Your task to perform on an android device: Clear all items from cart on bestbuy.com. Search for "acer predator" on bestbuy.com, select the first entry, add it to the cart, then select checkout. Image 0: 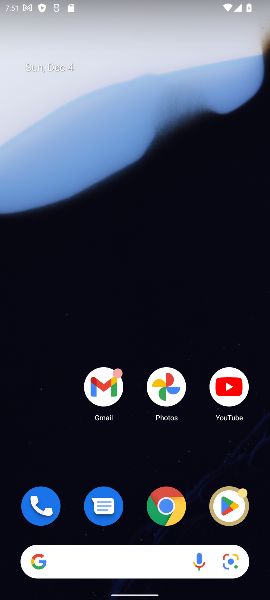
Step 0: click (177, 515)
Your task to perform on an android device: Clear all items from cart on bestbuy.com. Search for "acer predator" on bestbuy.com, select the first entry, add it to the cart, then select checkout. Image 1: 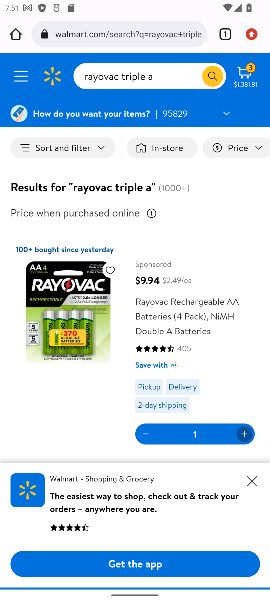
Step 1: click (74, 39)
Your task to perform on an android device: Clear all items from cart on bestbuy.com. Search for "acer predator" on bestbuy.com, select the first entry, add it to the cart, then select checkout. Image 2: 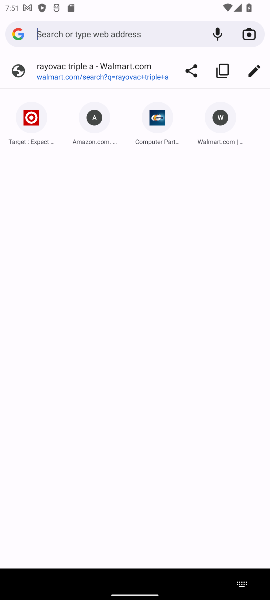
Step 2: type "bestbuy"
Your task to perform on an android device: Clear all items from cart on bestbuy.com. Search for "acer predator" on bestbuy.com, select the first entry, add it to the cart, then select checkout. Image 3: 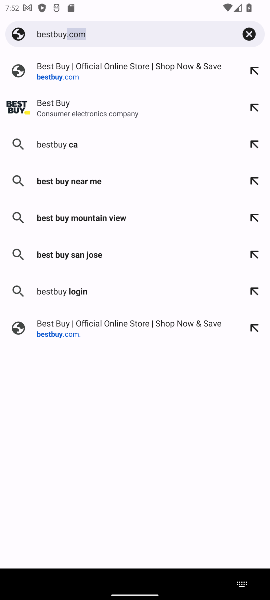
Step 3: click (62, 120)
Your task to perform on an android device: Clear all items from cart on bestbuy.com. Search for "acer predator" on bestbuy.com, select the first entry, add it to the cart, then select checkout. Image 4: 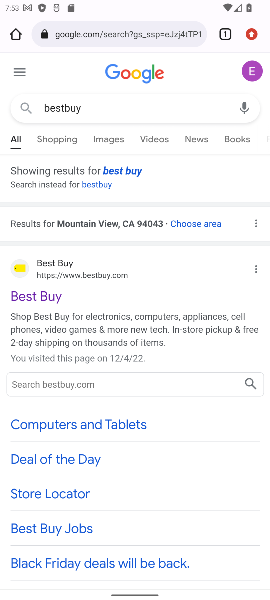
Step 4: click (11, 295)
Your task to perform on an android device: Clear all items from cart on bestbuy.com. Search for "acer predator" on bestbuy.com, select the first entry, add it to the cart, then select checkout. Image 5: 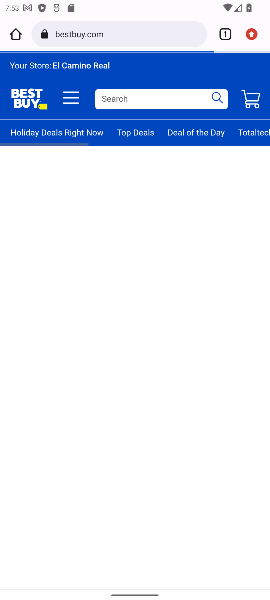
Step 5: click (11, 295)
Your task to perform on an android device: Clear all items from cart on bestbuy.com. Search for "acer predator" on bestbuy.com, select the first entry, add it to the cart, then select checkout. Image 6: 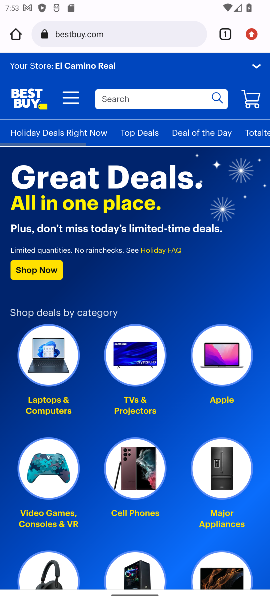
Step 6: click (139, 98)
Your task to perform on an android device: Clear all items from cart on bestbuy.com. Search for "acer predator" on bestbuy.com, select the first entry, add it to the cart, then select checkout. Image 7: 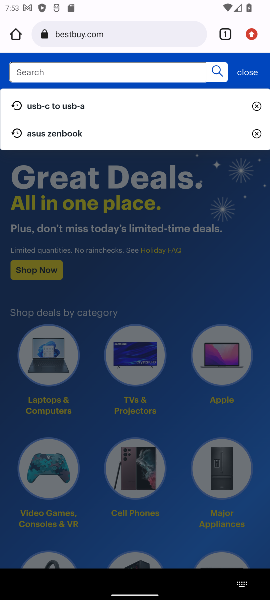
Step 7: type "acer predator"
Your task to perform on an android device: Clear all items from cart on bestbuy.com. Search for "acer predator" on bestbuy.com, select the first entry, add it to the cart, then select checkout. Image 8: 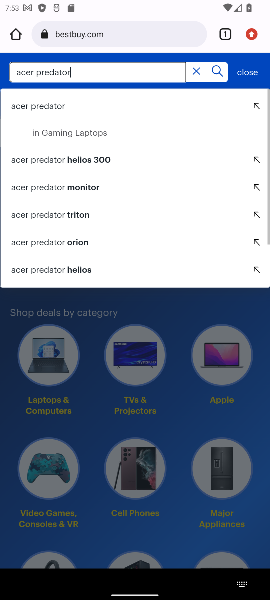
Step 8: click (31, 110)
Your task to perform on an android device: Clear all items from cart on bestbuy.com. Search for "acer predator" on bestbuy.com, select the first entry, add it to the cart, then select checkout. Image 9: 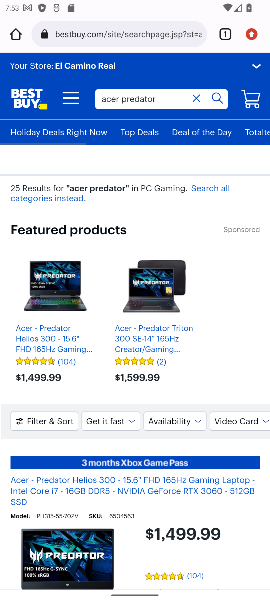
Step 9: drag from (143, 505) to (151, 162)
Your task to perform on an android device: Clear all items from cart on bestbuy.com. Search for "acer predator" on bestbuy.com, select the first entry, add it to the cart, then select checkout. Image 10: 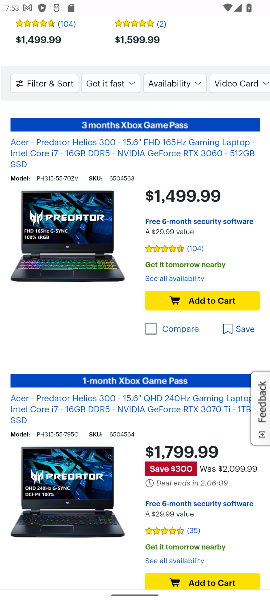
Step 10: click (183, 298)
Your task to perform on an android device: Clear all items from cart on bestbuy.com. Search for "acer predator" on bestbuy.com, select the first entry, add it to the cart, then select checkout. Image 11: 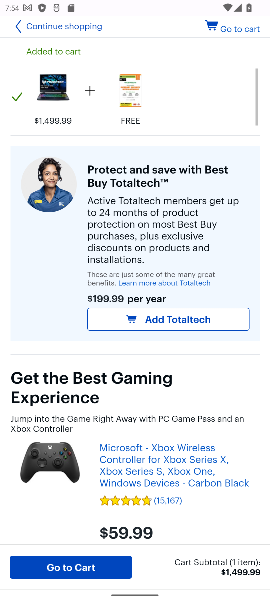
Step 11: click (68, 567)
Your task to perform on an android device: Clear all items from cart on bestbuy.com. Search for "acer predator" on bestbuy.com, select the first entry, add it to the cart, then select checkout. Image 12: 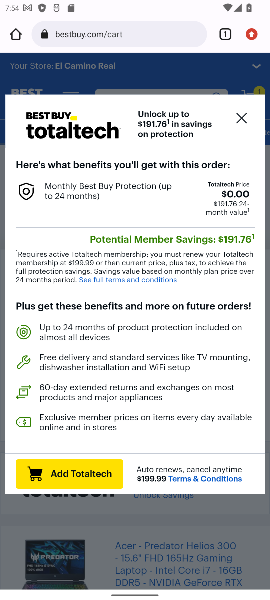
Step 12: click (240, 116)
Your task to perform on an android device: Clear all items from cart on bestbuy.com. Search for "acer predator" on bestbuy.com, select the first entry, add it to the cart, then select checkout. Image 13: 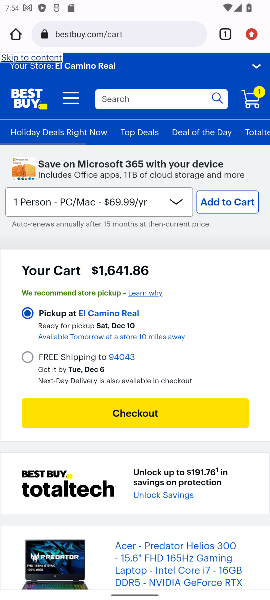
Step 13: click (189, 411)
Your task to perform on an android device: Clear all items from cart on bestbuy.com. Search for "acer predator" on bestbuy.com, select the first entry, add it to the cart, then select checkout. Image 14: 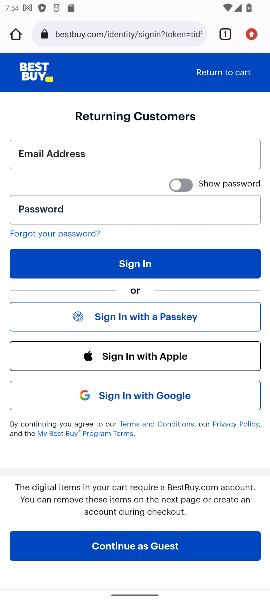
Step 14: task complete